Your task to perform on an android device: Open network settings Image 0: 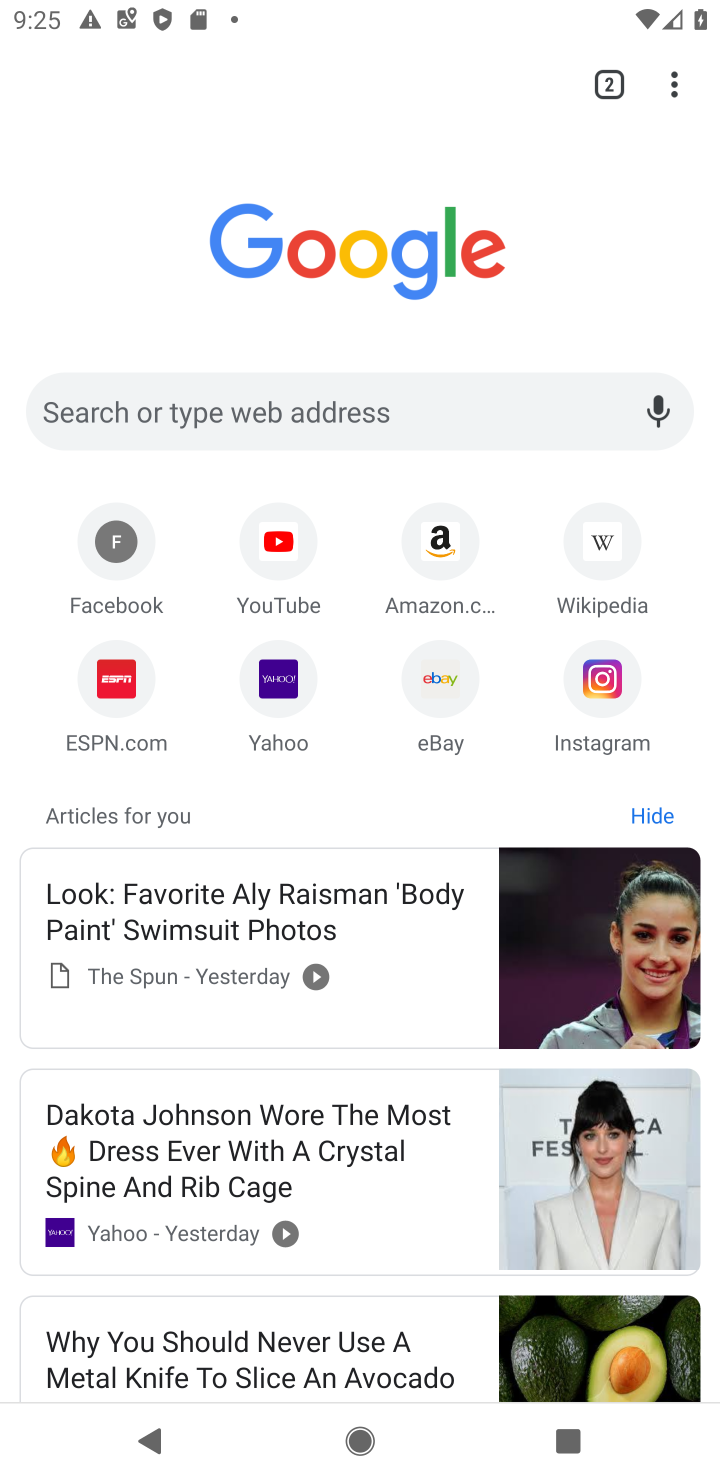
Step 0: press home button
Your task to perform on an android device: Open network settings Image 1: 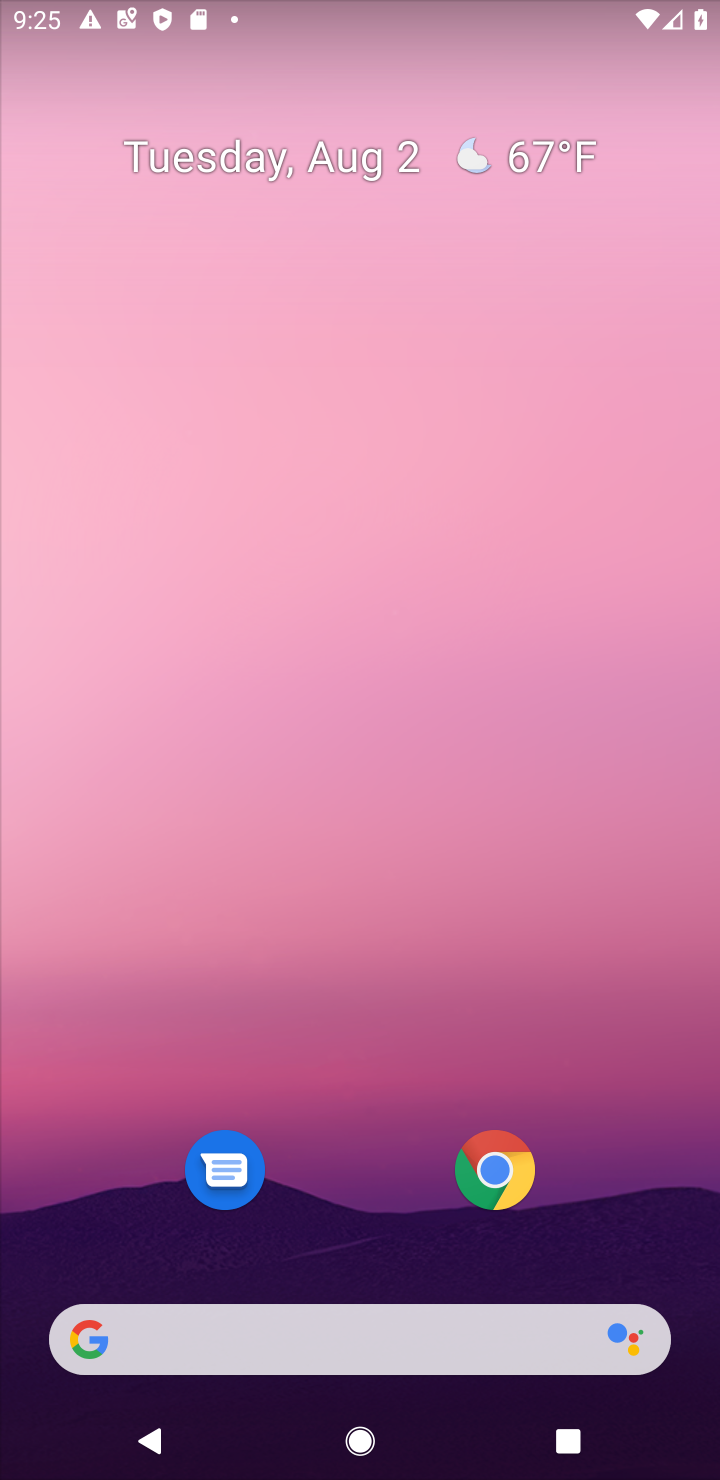
Step 1: drag from (305, 1242) to (217, 20)
Your task to perform on an android device: Open network settings Image 2: 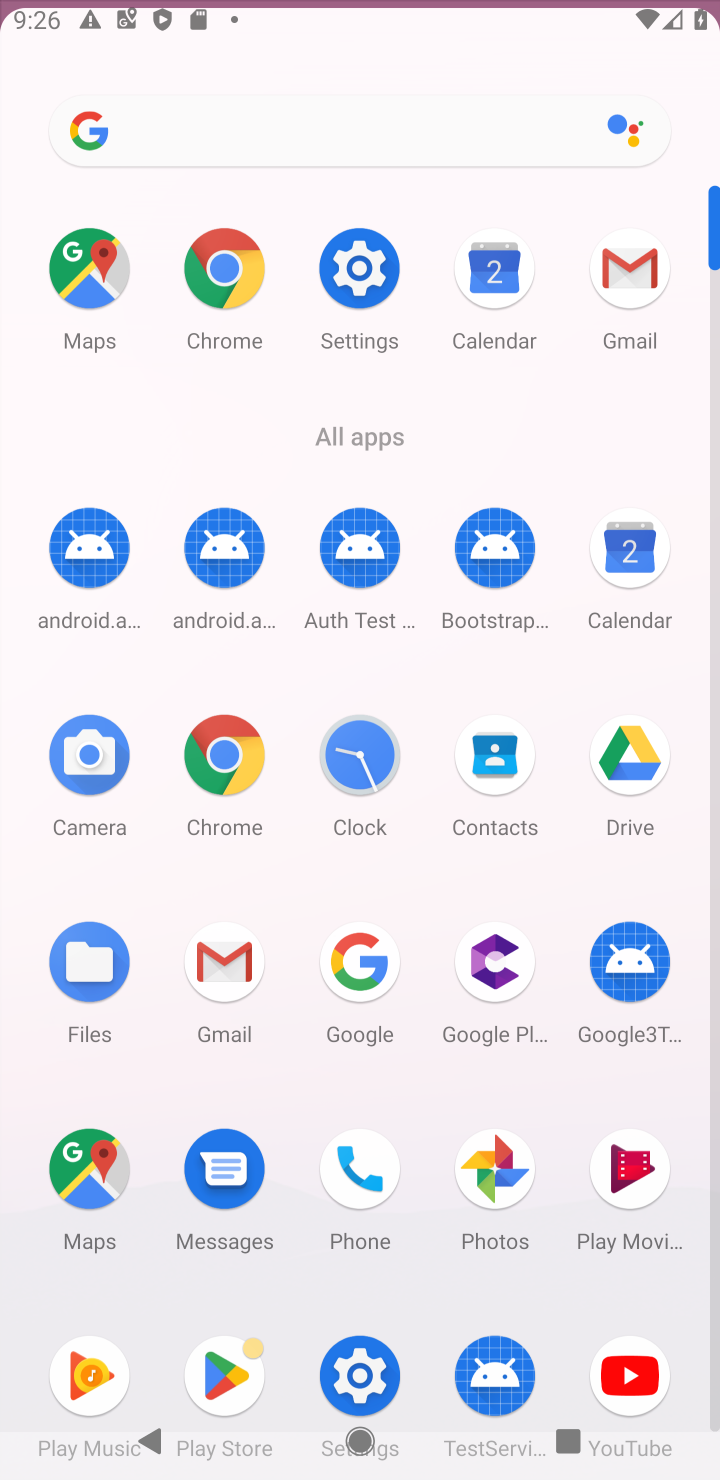
Step 2: click (359, 407)
Your task to perform on an android device: Open network settings Image 3: 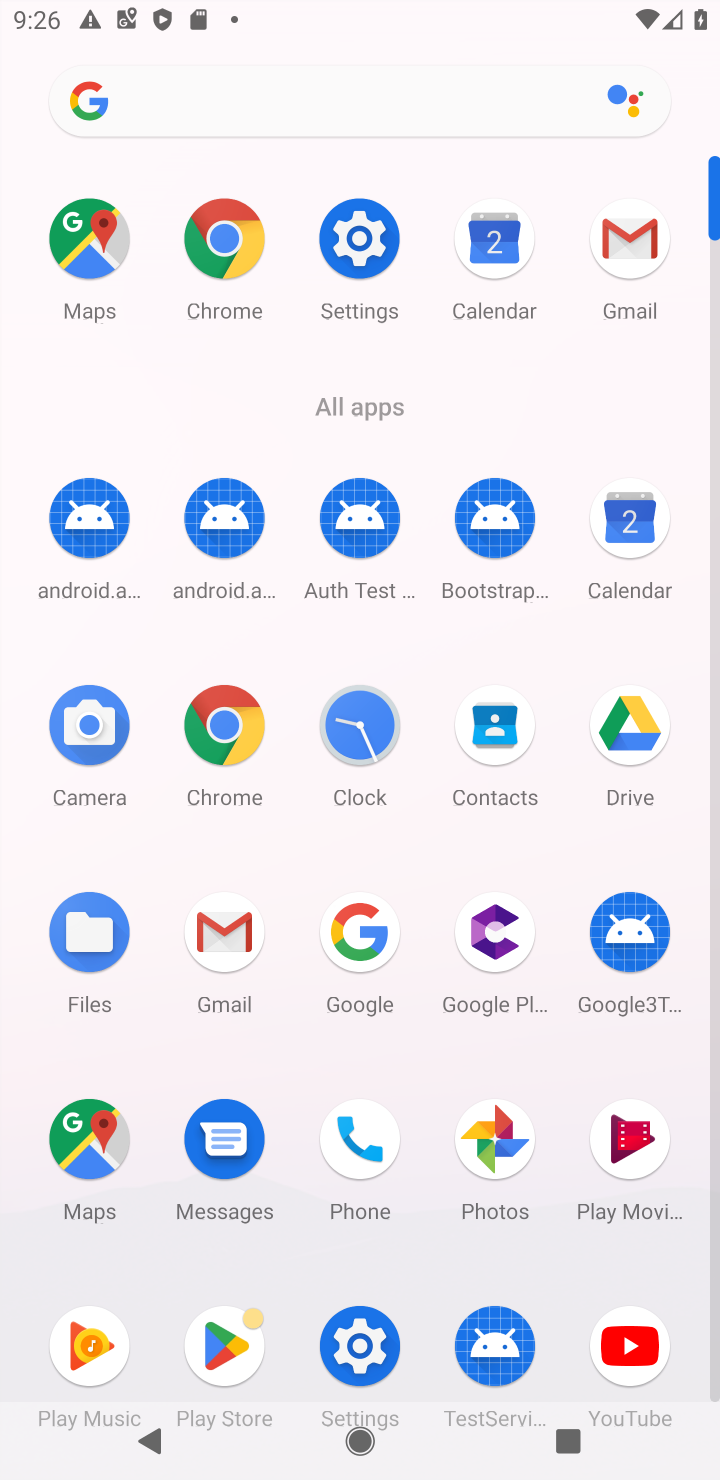
Step 3: click (363, 226)
Your task to perform on an android device: Open network settings Image 4: 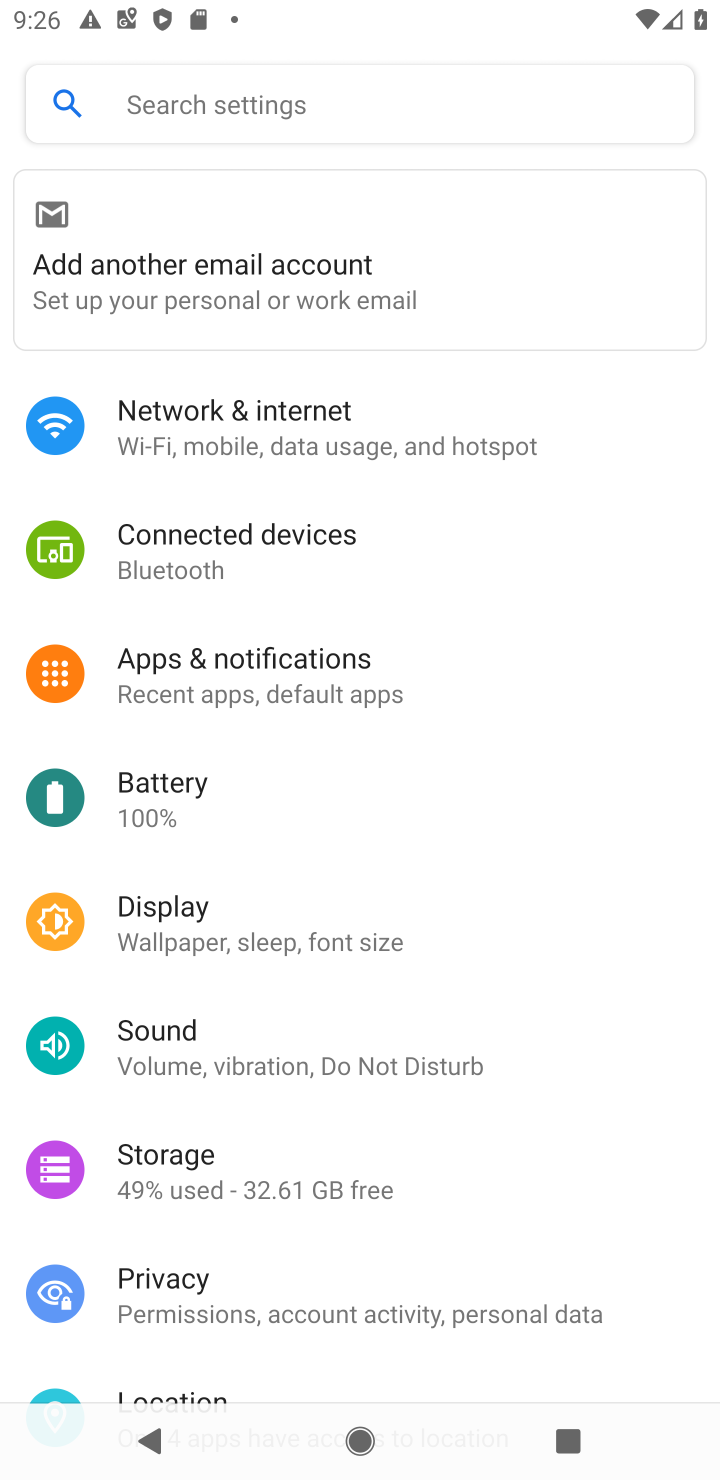
Step 4: click (314, 410)
Your task to perform on an android device: Open network settings Image 5: 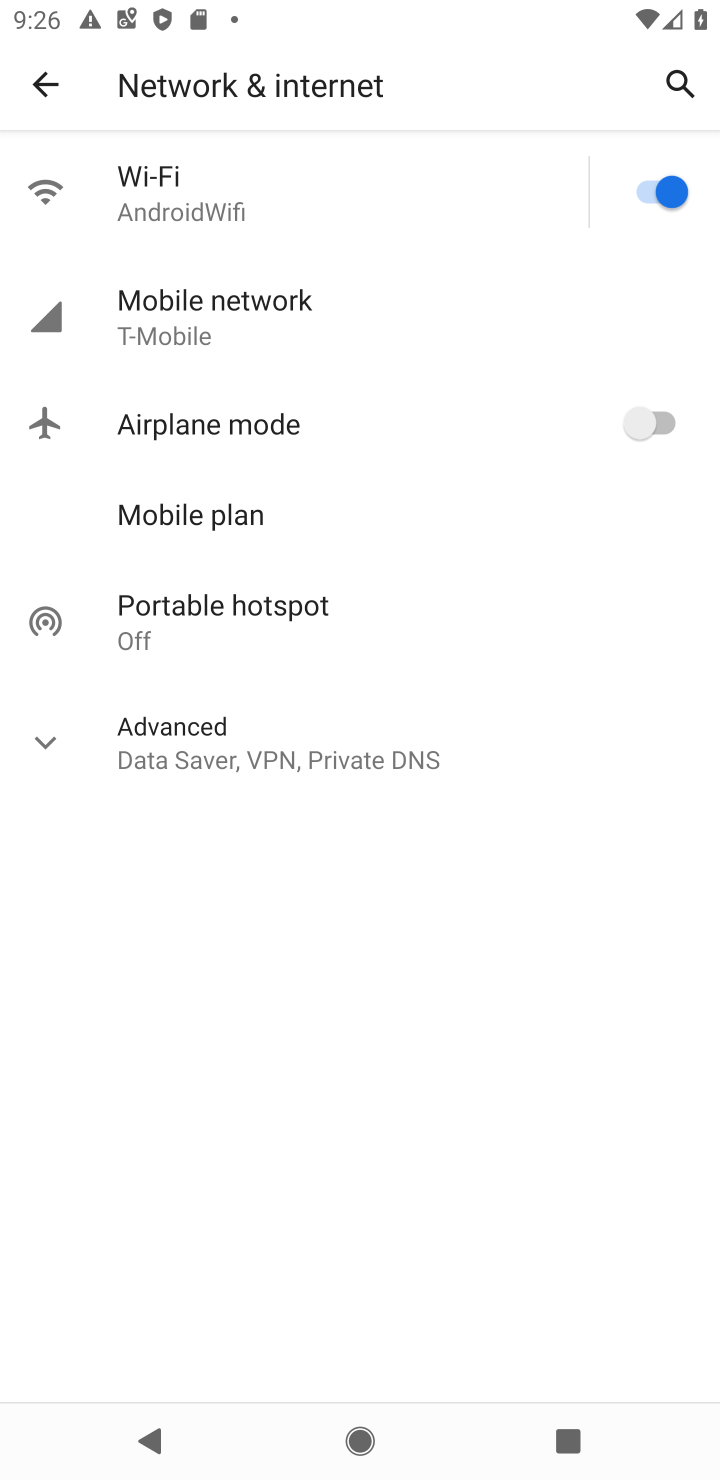
Step 5: task complete